Your task to perform on an android device: turn off javascript in the chrome app Image 0: 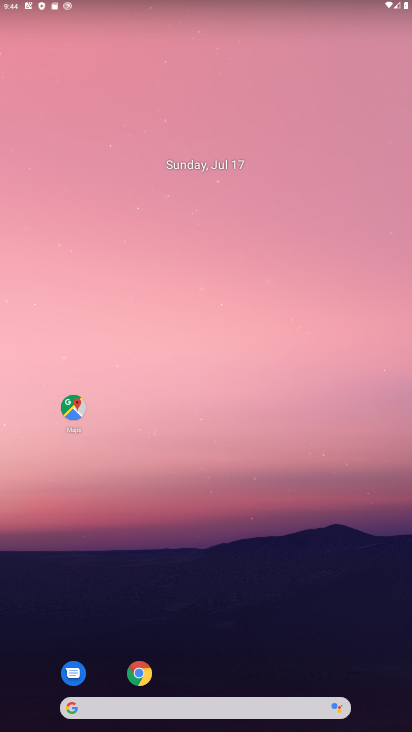
Step 0: drag from (227, 666) to (215, 146)
Your task to perform on an android device: turn off javascript in the chrome app Image 1: 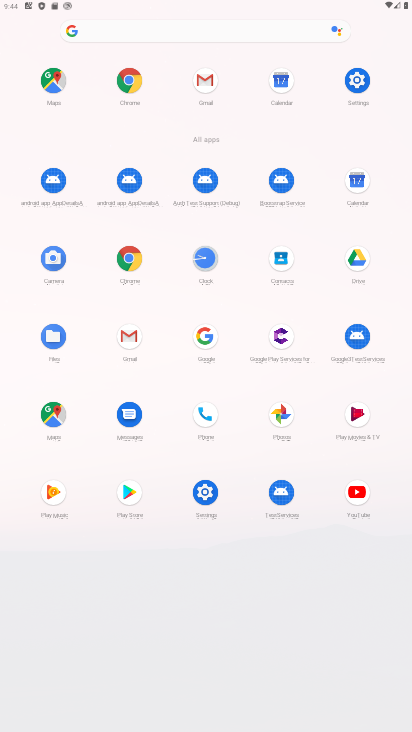
Step 1: click (131, 78)
Your task to perform on an android device: turn off javascript in the chrome app Image 2: 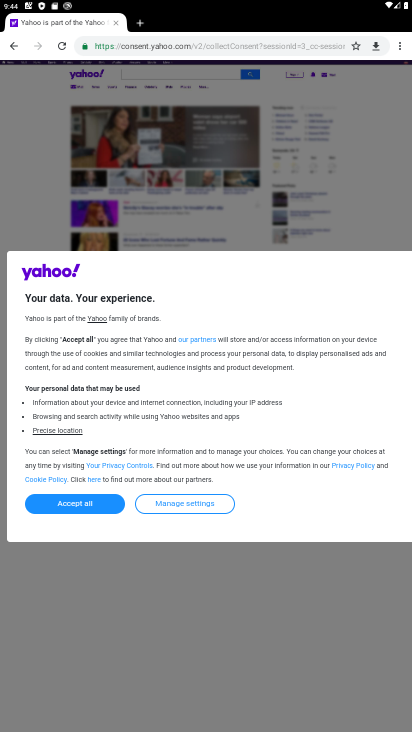
Step 2: click (397, 48)
Your task to perform on an android device: turn off javascript in the chrome app Image 3: 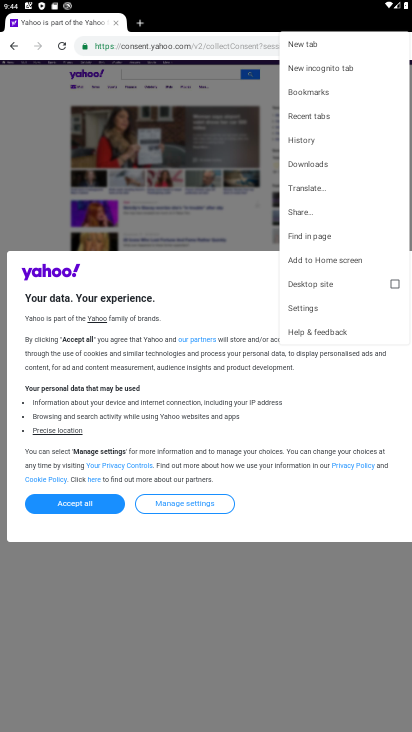
Step 3: click (313, 307)
Your task to perform on an android device: turn off javascript in the chrome app Image 4: 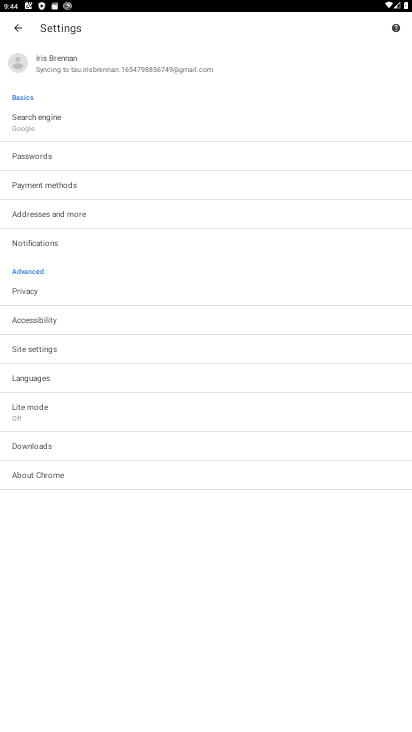
Step 4: click (40, 345)
Your task to perform on an android device: turn off javascript in the chrome app Image 5: 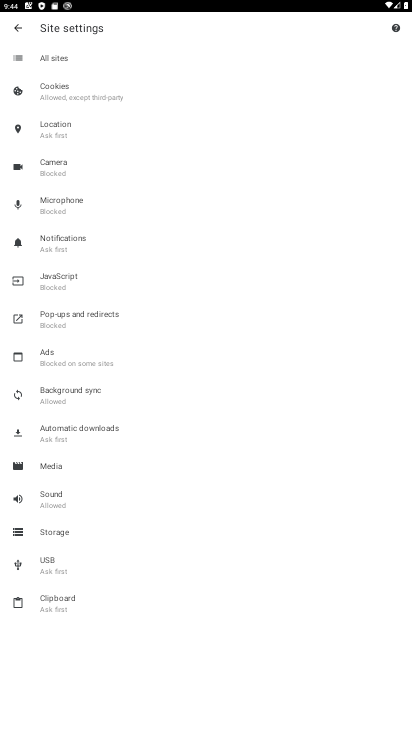
Step 5: click (75, 281)
Your task to perform on an android device: turn off javascript in the chrome app Image 6: 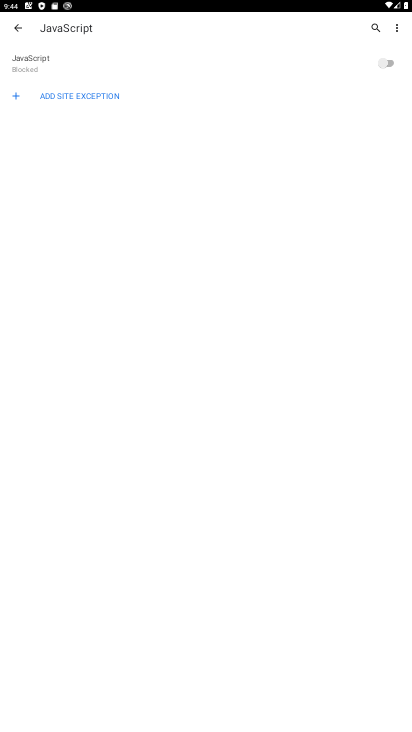
Step 6: task complete